Your task to perform on an android device: Open Amazon Image 0: 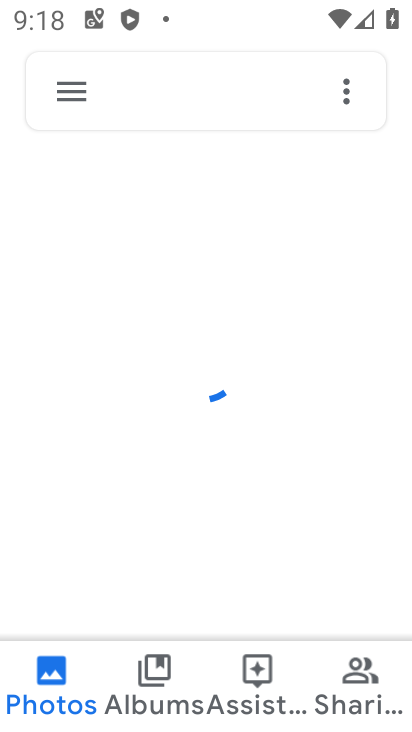
Step 0: press home button
Your task to perform on an android device: Open Amazon Image 1: 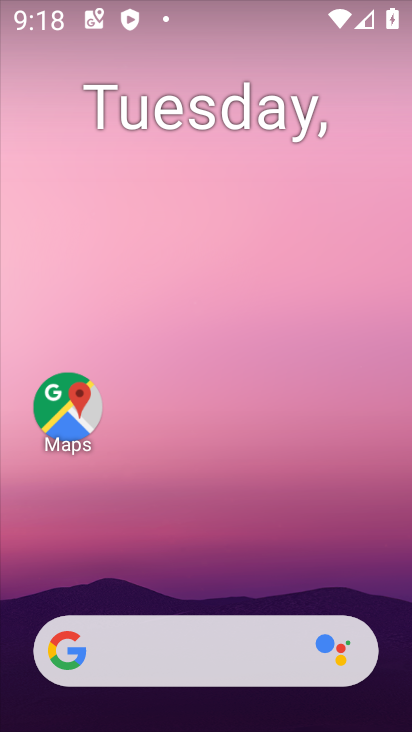
Step 1: drag from (185, 603) to (312, 5)
Your task to perform on an android device: Open Amazon Image 2: 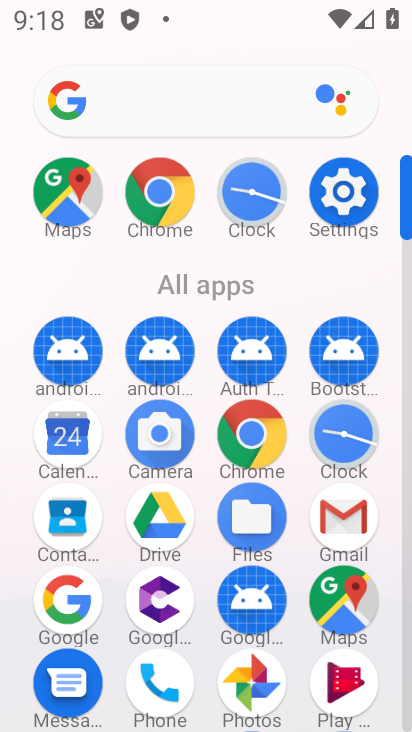
Step 2: click (166, 211)
Your task to perform on an android device: Open Amazon Image 3: 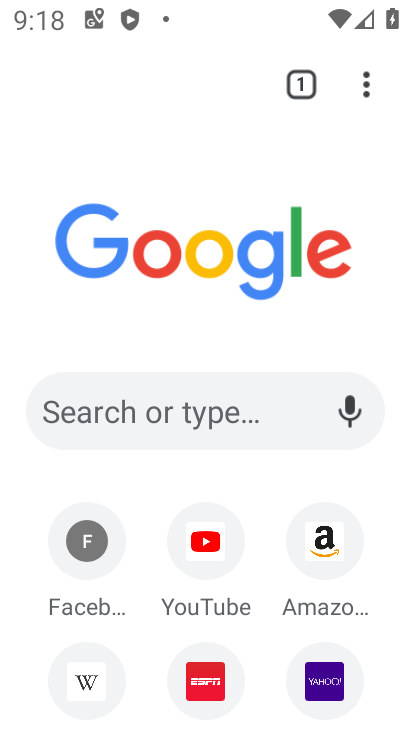
Step 3: click (317, 561)
Your task to perform on an android device: Open Amazon Image 4: 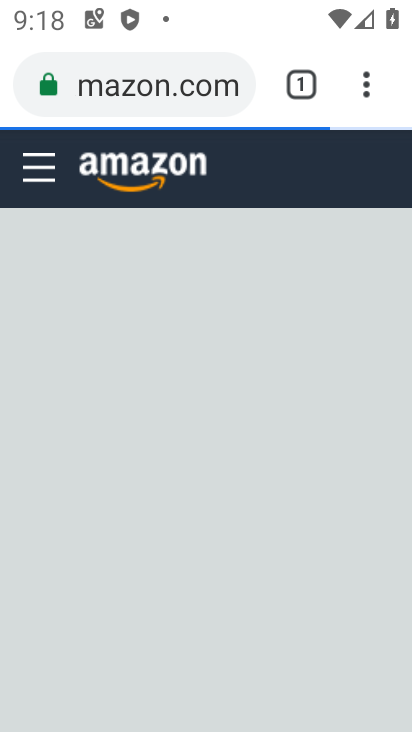
Step 4: task complete